Your task to perform on an android device: Open location settings Image 0: 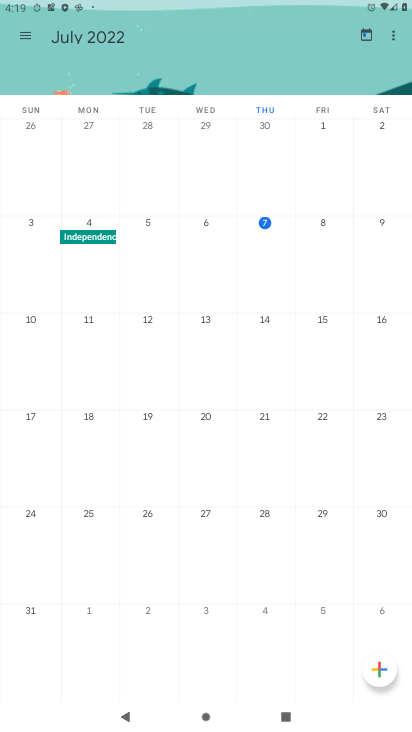
Step 0: press home button
Your task to perform on an android device: Open location settings Image 1: 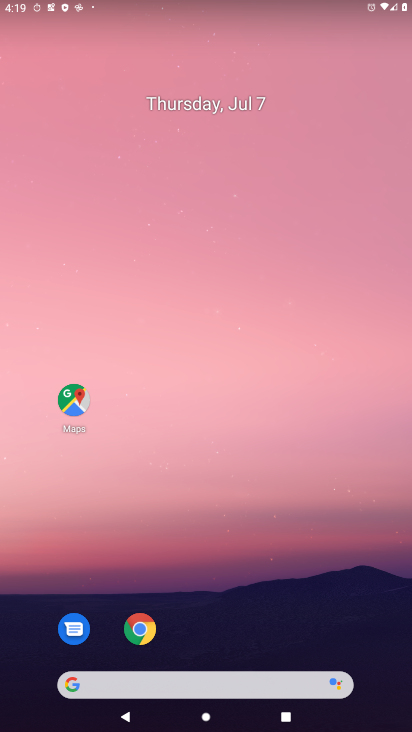
Step 1: drag from (213, 542) to (194, 202)
Your task to perform on an android device: Open location settings Image 2: 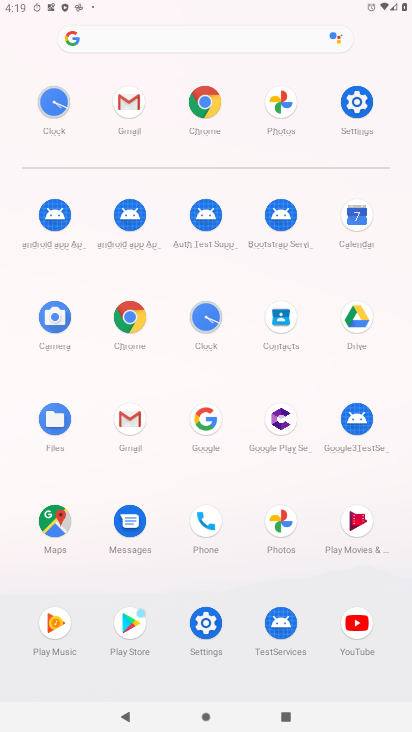
Step 2: click (355, 109)
Your task to perform on an android device: Open location settings Image 3: 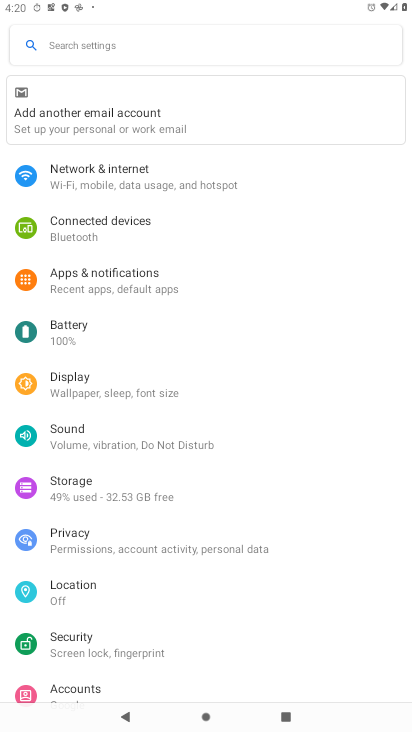
Step 3: click (77, 596)
Your task to perform on an android device: Open location settings Image 4: 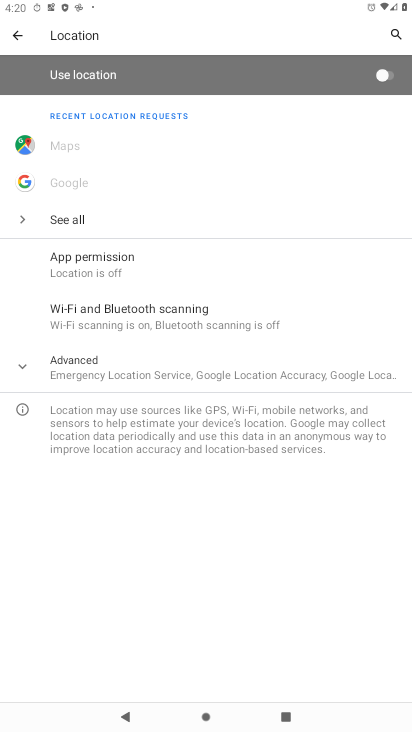
Step 4: click (93, 365)
Your task to perform on an android device: Open location settings Image 5: 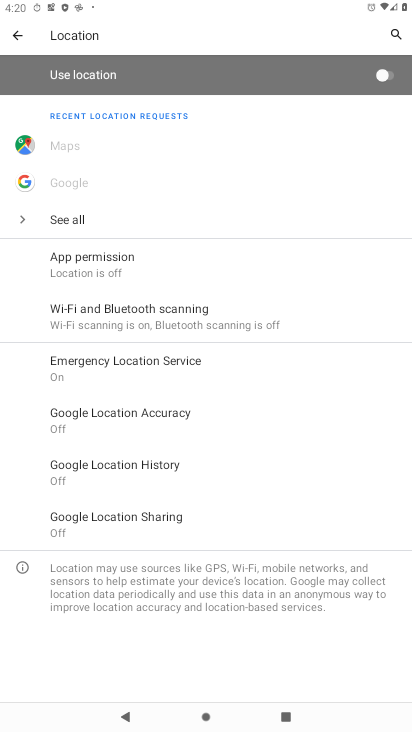
Step 5: task complete